Your task to perform on an android device: Open privacy settings Image 0: 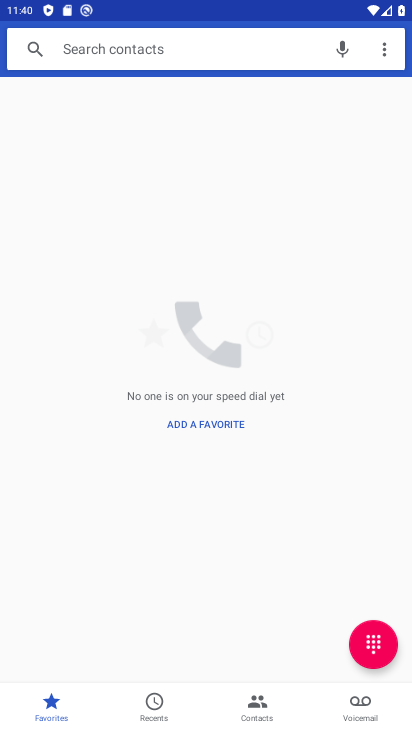
Step 0: press home button
Your task to perform on an android device: Open privacy settings Image 1: 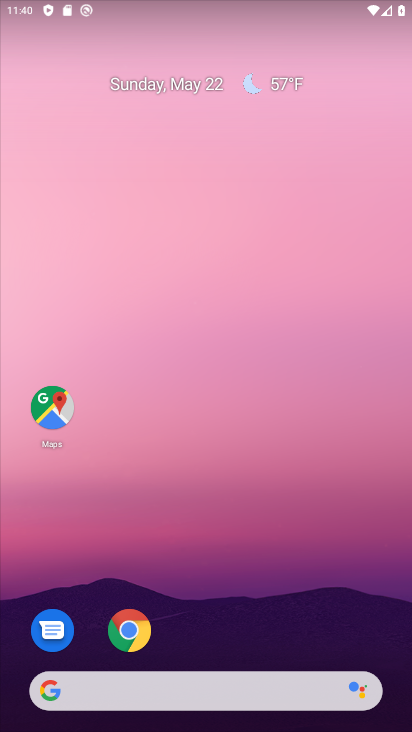
Step 1: drag from (314, 589) to (159, 0)
Your task to perform on an android device: Open privacy settings Image 2: 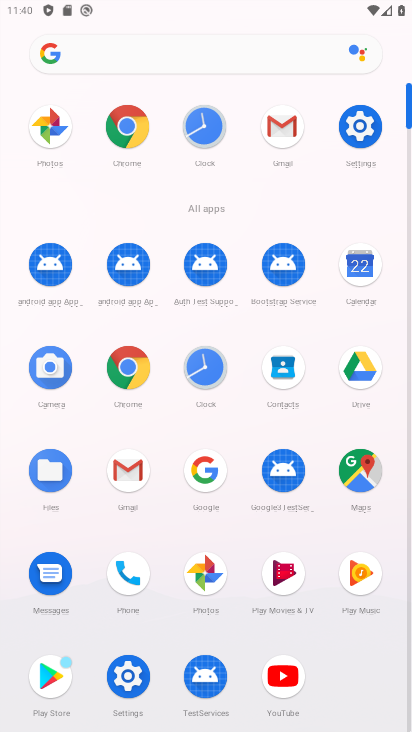
Step 2: click (358, 128)
Your task to perform on an android device: Open privacy settings Image 3: 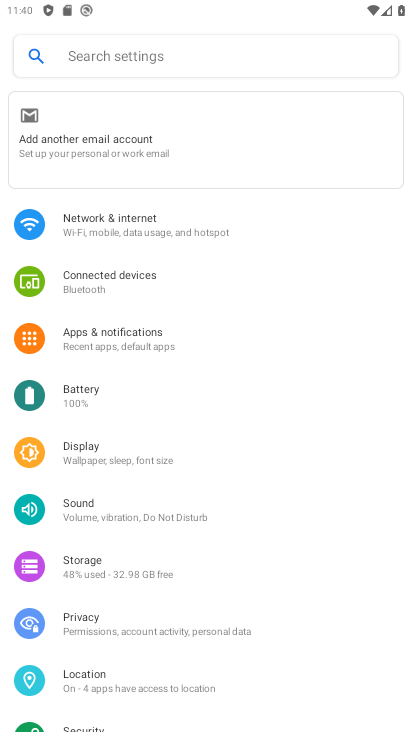
Step 3: click (180, 622)
Your task to perform on an android device: Open privacy settings Image 4: 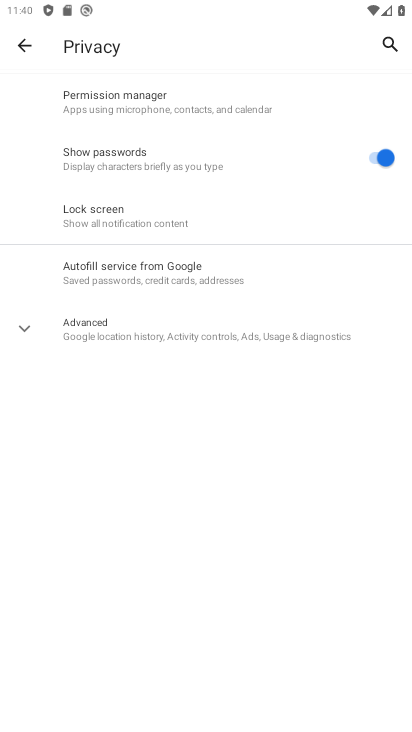
Step 4: task complete